Your task to perform on an android device: Go to Yahoo.com Image 0: 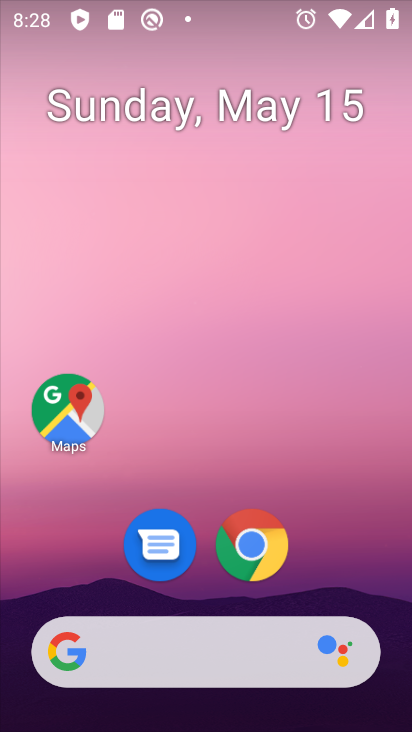
Step 0: drag from (355, 562) to (387, 67)
Your task to perform on an android device: Go to Yahoo.com Image 1: 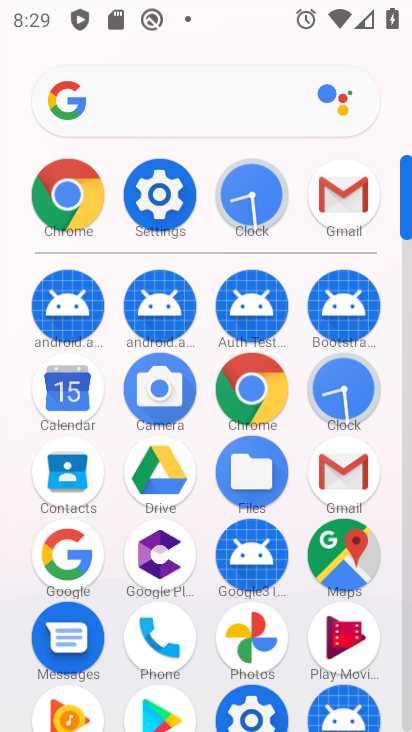
Step 1: click (257, 408)
Your task to perform on an android device: Go to Yahoo.com Image 2: 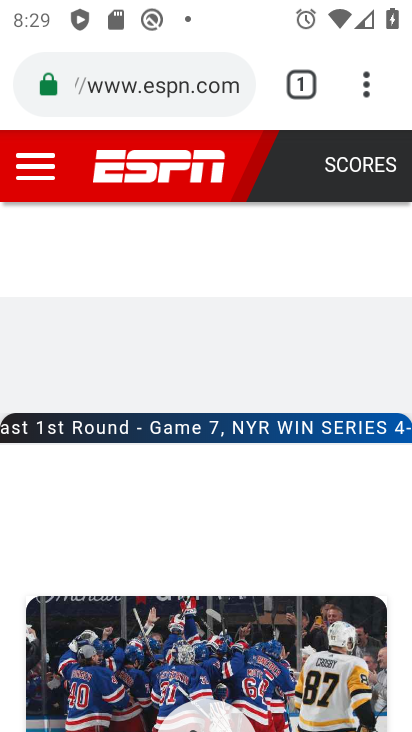
Step 2: click (170, 93)
Your task to perform on an android device: Go to Yahoo.com Image 3: 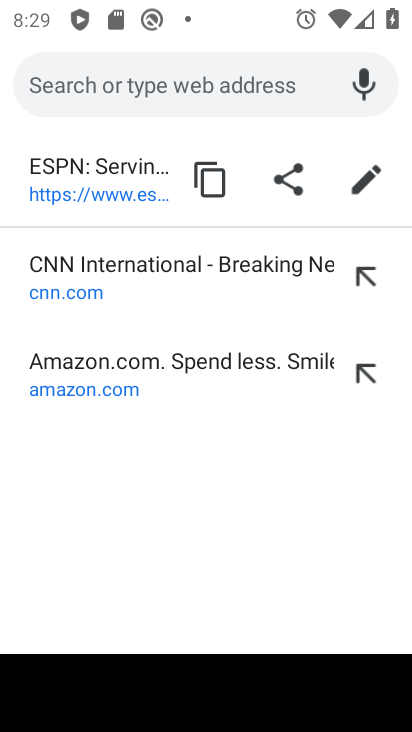
Step 3: type "yahoo.com"
Your task to perform on an android device: Go to Yahoo.com Image 4: 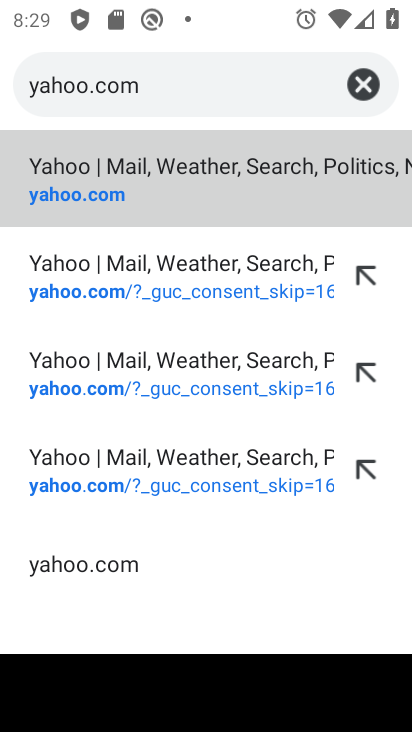
Step 4: click (126, 197)
Your task to perform on an android device: Go to Yahoo.com Image 5: 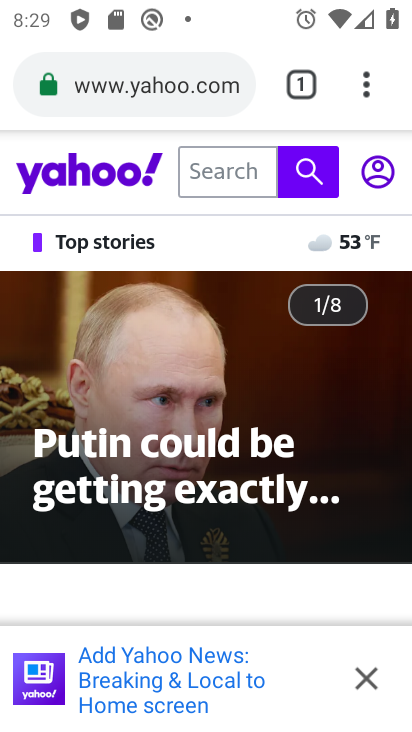
Step 5: task complete